Your task to perform on an android device: all mails in gmail Image 0: 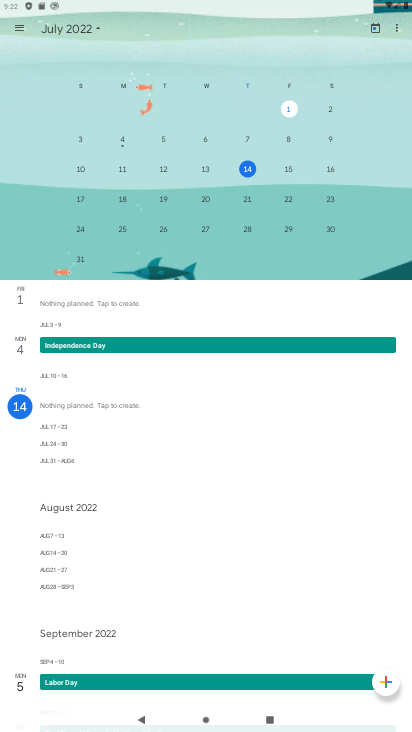
Step 0: press home button
Your task to perform on an android device: all mails in gmail Image 1: 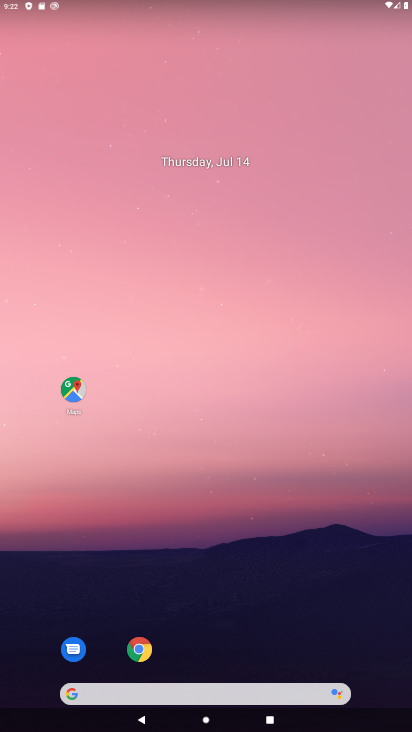
Step 1: drag from (209, 671) to (221, 201)
Your task to perform on an android device: all mails in gmail Image 2: 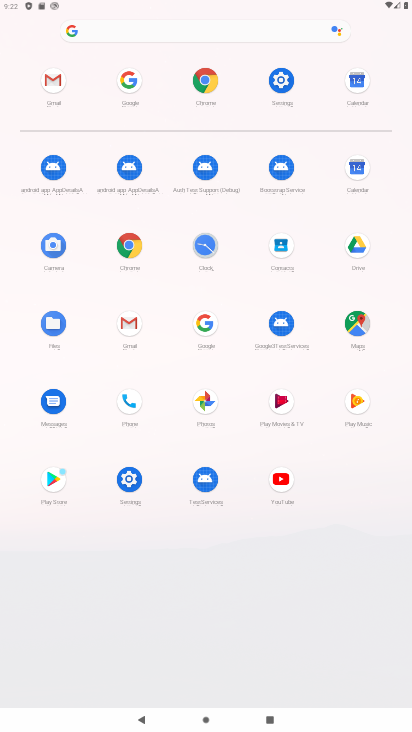
Step 2: click (55, 91)
Your task to perform on an android device: all mails in gmail Image 3: 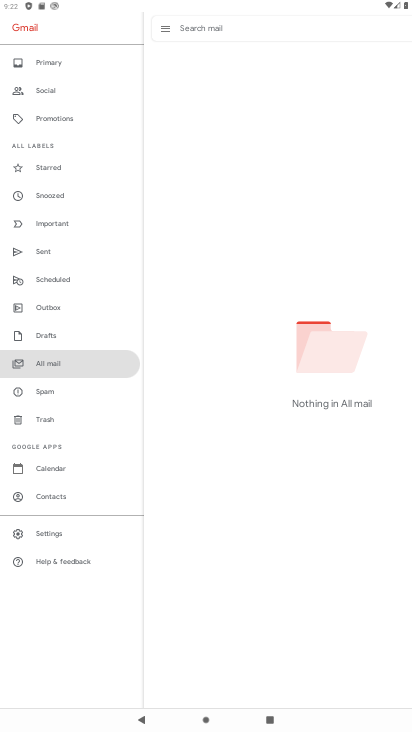
Step 3: click (76, 366)
Your task to perform on an android device: all mails in gmail Image 4: 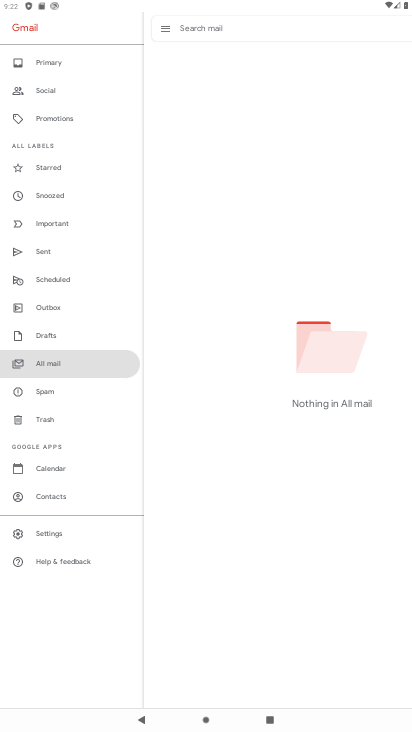
Step 4: task complete